Your task to perform on an android device: Open my contact list Image 0: 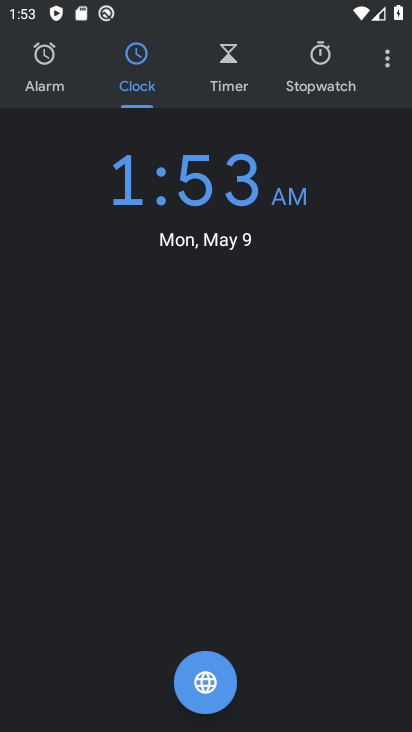
Step 0: press back button
Your task to perform on an android device: Open my contact list Image 1: 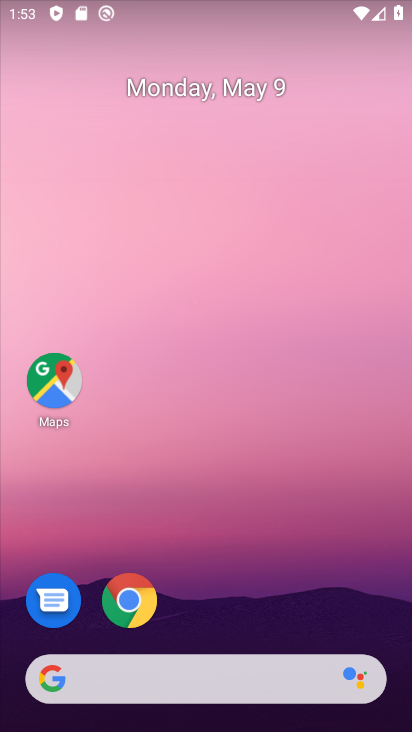
Step 1: drag from (244, 566) to (215, 0)
Your task to perform on an android device: Open my contact list Image 2: 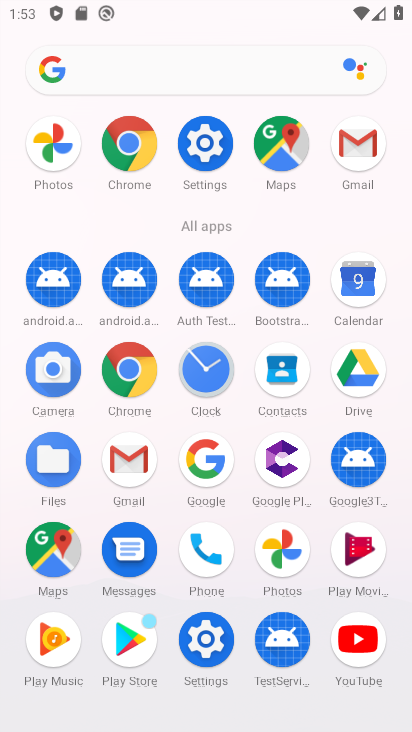
Step 2: drag from (7, 568) to (15, 309)
Your task to perform on an android device: Open my contact list Image 3: 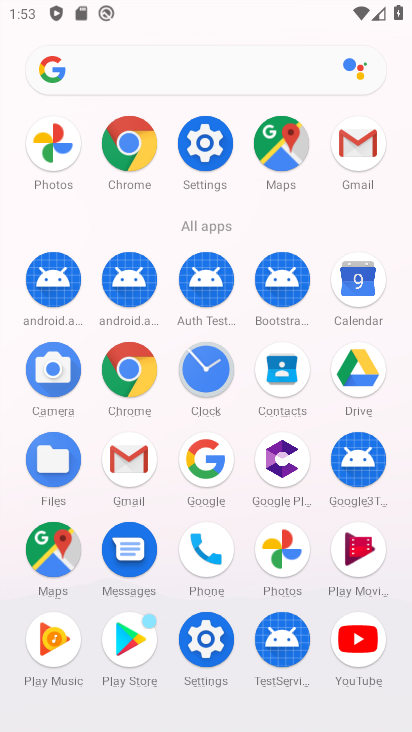
Step 3: click (276, 365)
Your task to perform on an android device: Open my contact list Image 4: 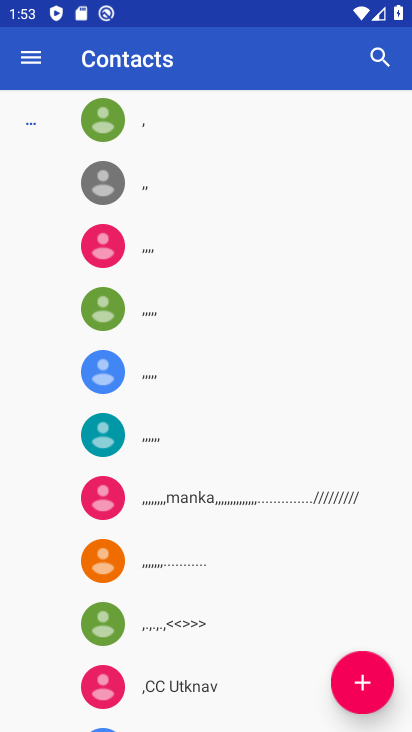
Step 4: task complete